Your task to perform on an android device: change your default location settings in chrome Image 0: 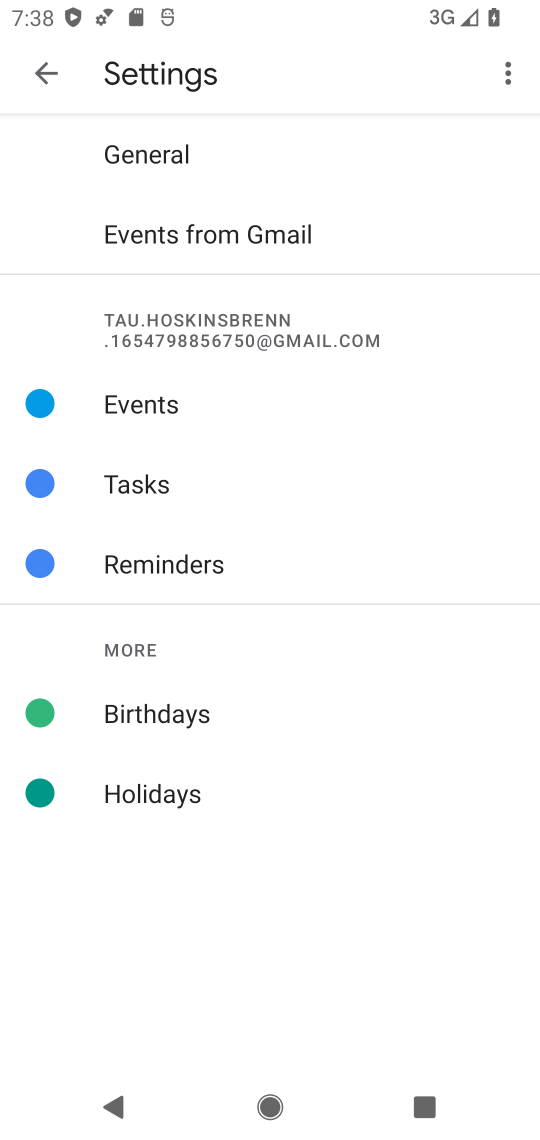
Step 0: press home button
Your task to perform on an android device: change your default location settings in chrome Image 1: 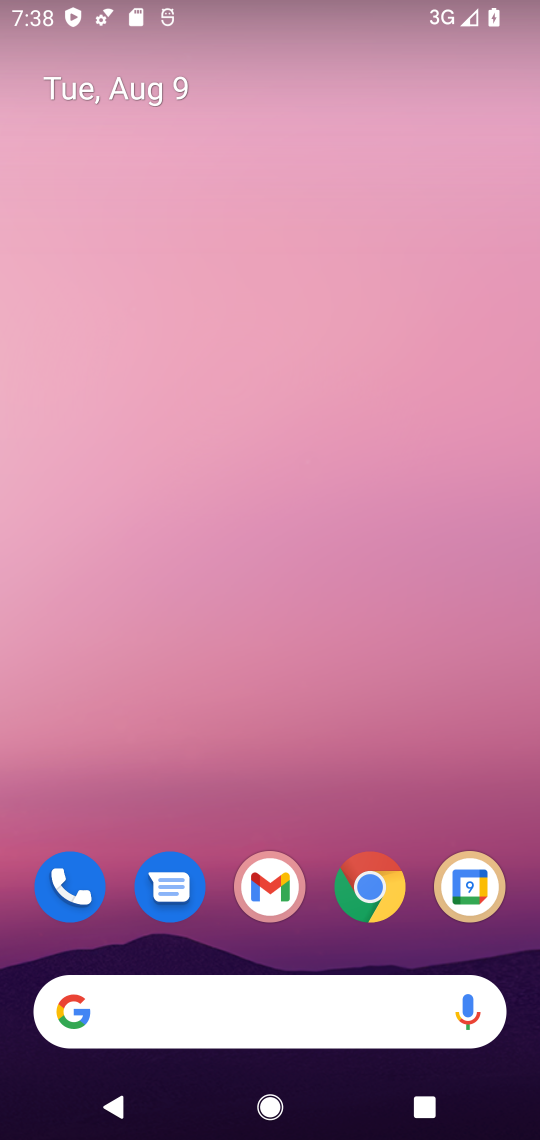
Step 1: click (369, 885)
Your task to perform on an android device: change your default location settings in chrome Image 2: 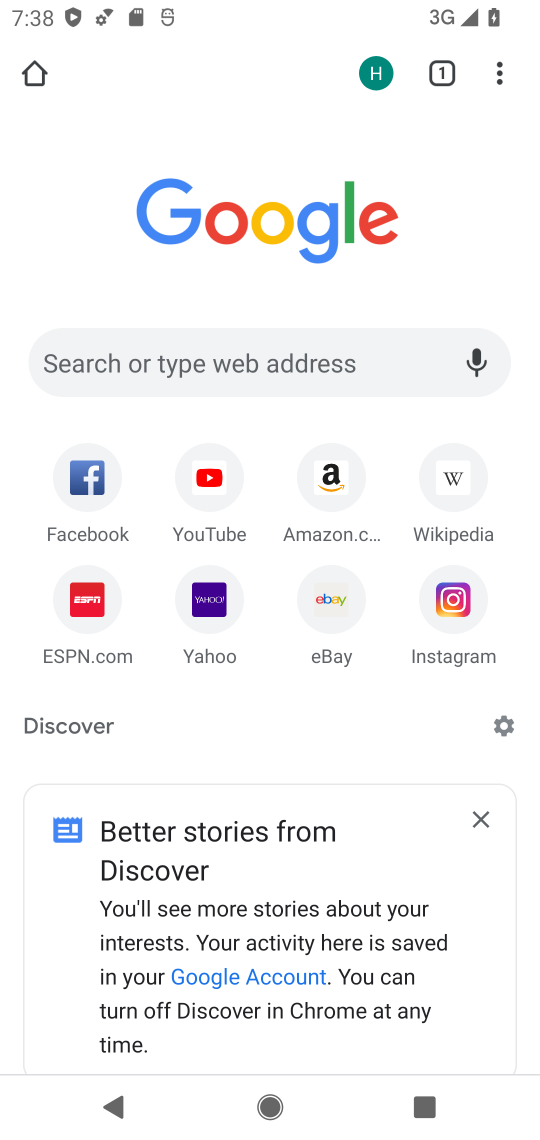
Step 2: click (497, 67)
Your task to perform on an android device: change your default location settings in chrome Image 3: 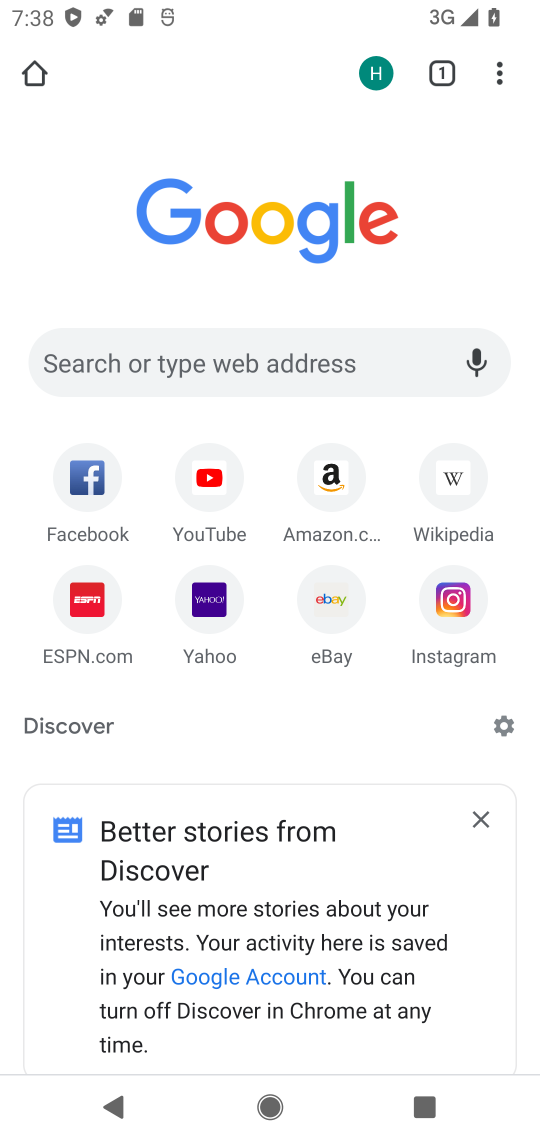
Step 3: click (497, 67)
Your task to perform on an android device: change your default location settings in chrome Image 4: 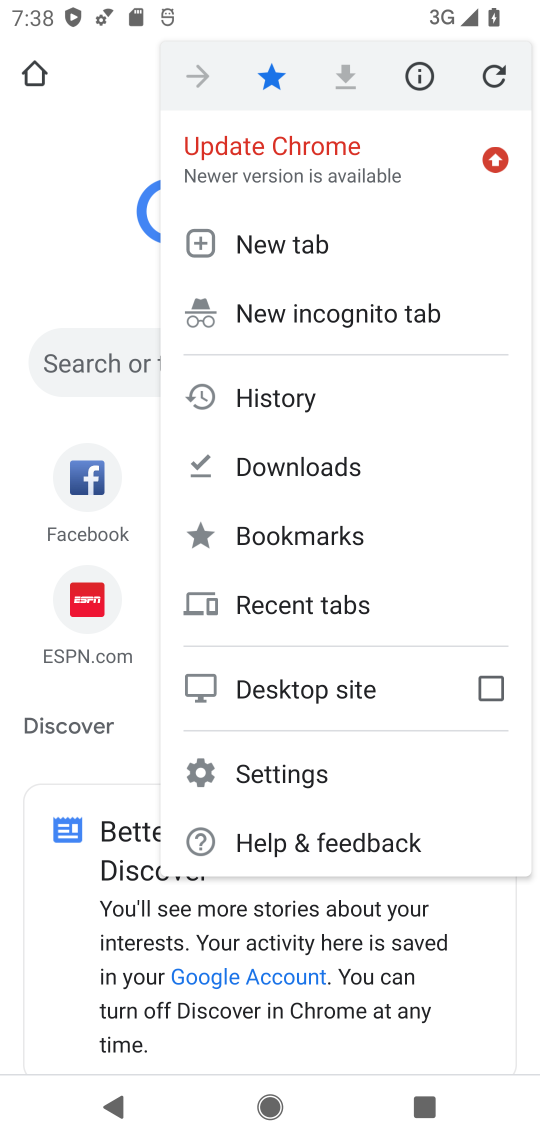
Step 4: click (322, 782)
Your task to perform on an android device: change your default location settings in chrome Image 5: 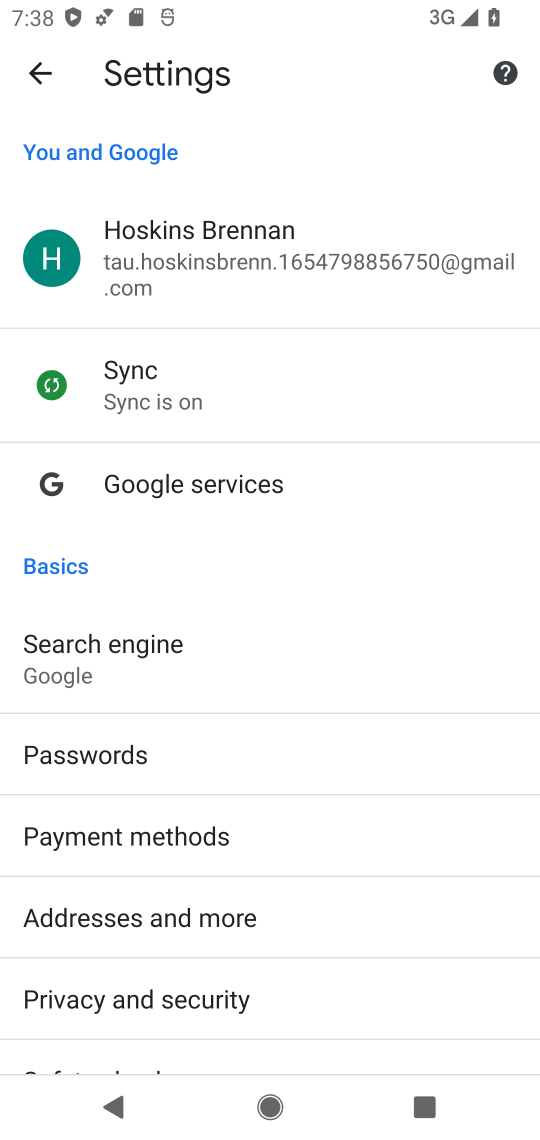
Step 5: drag from (382, 872) to (329, 403)
Your task to perform on an android device: change your default location settings in chrome Image 6: 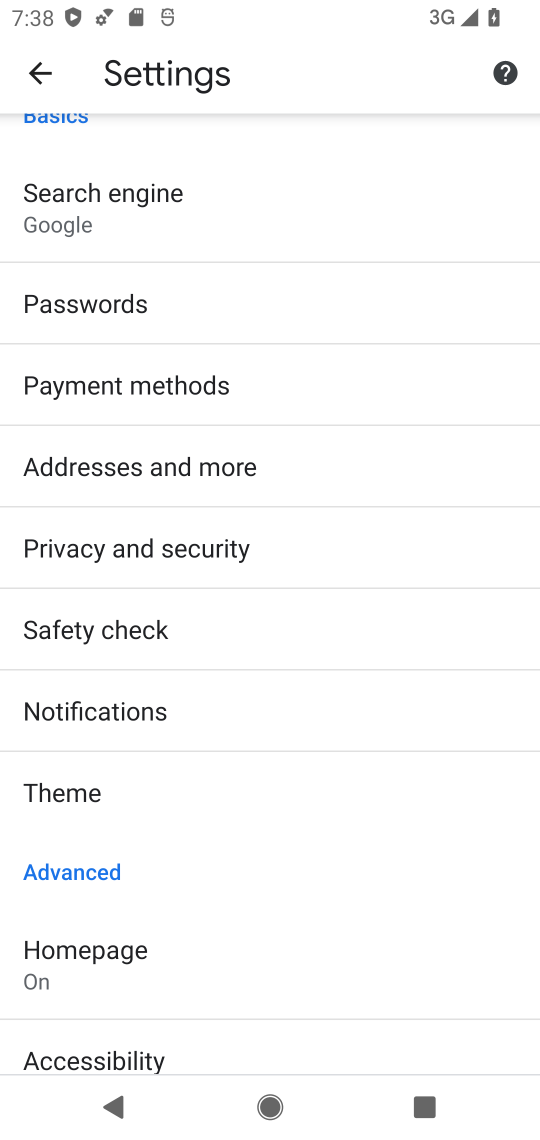
Step 6: drag from (334, 698) to (281, 223)
Your task to perform on an android device: change your default location settings in chrome Image 7: 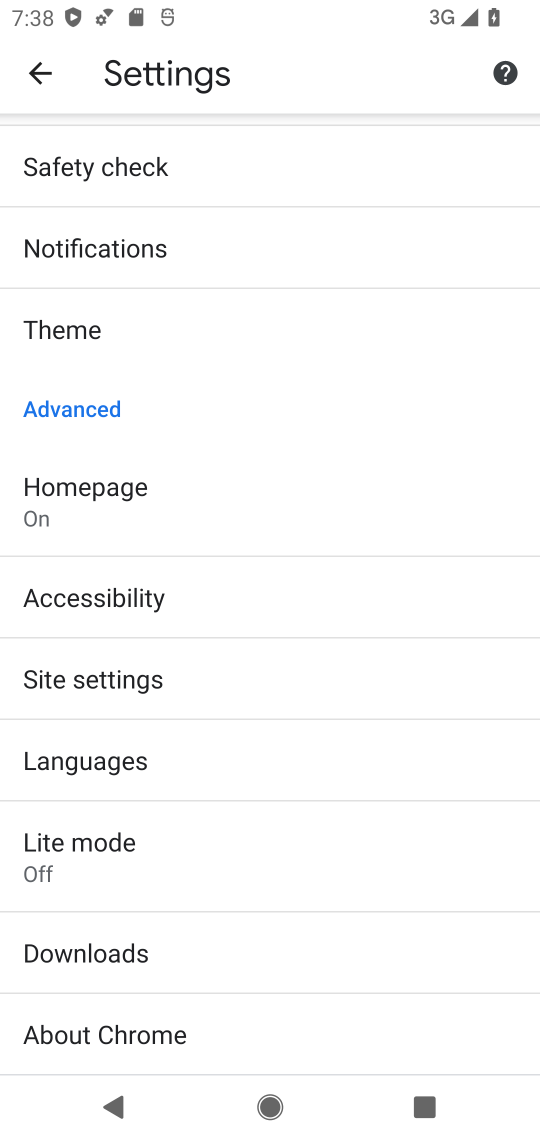
Step 7: click (214, 685)
Your task to perform on an android device: change your default location settings in chrome Image 8: 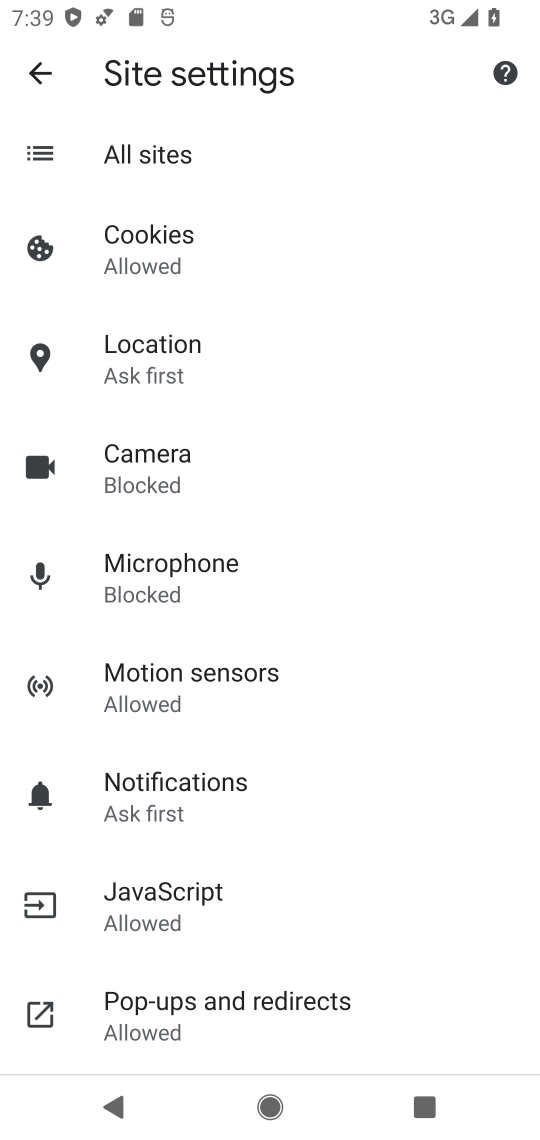
Step 8: click (166, 352)
Your task to perform on an android device: change your default location settings in chrome Image 9: 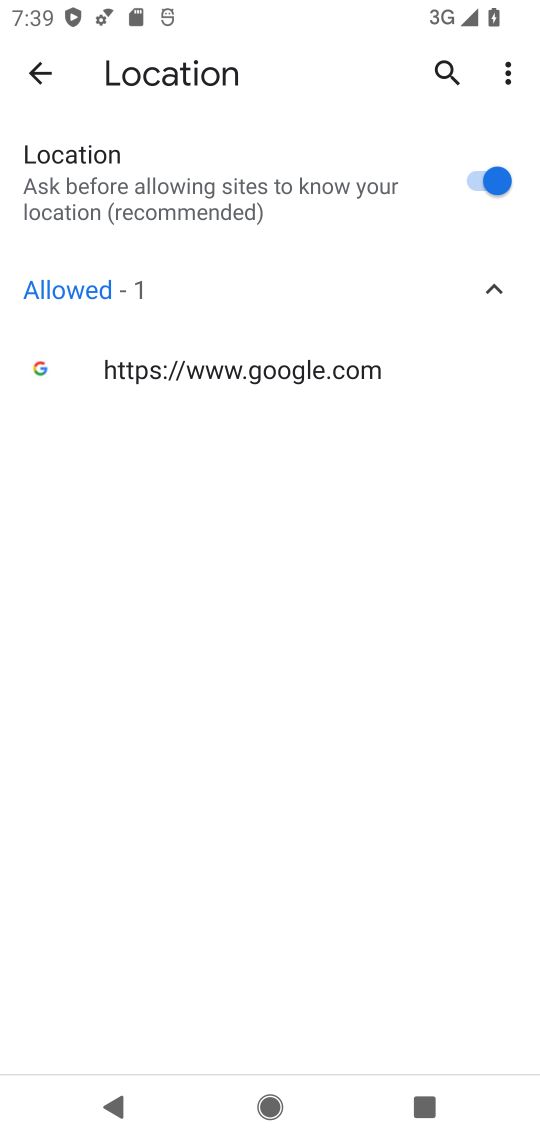
Step 9: click (480, 171)
Your task to perform on an android device: change your default location settings in chrome Image 10: 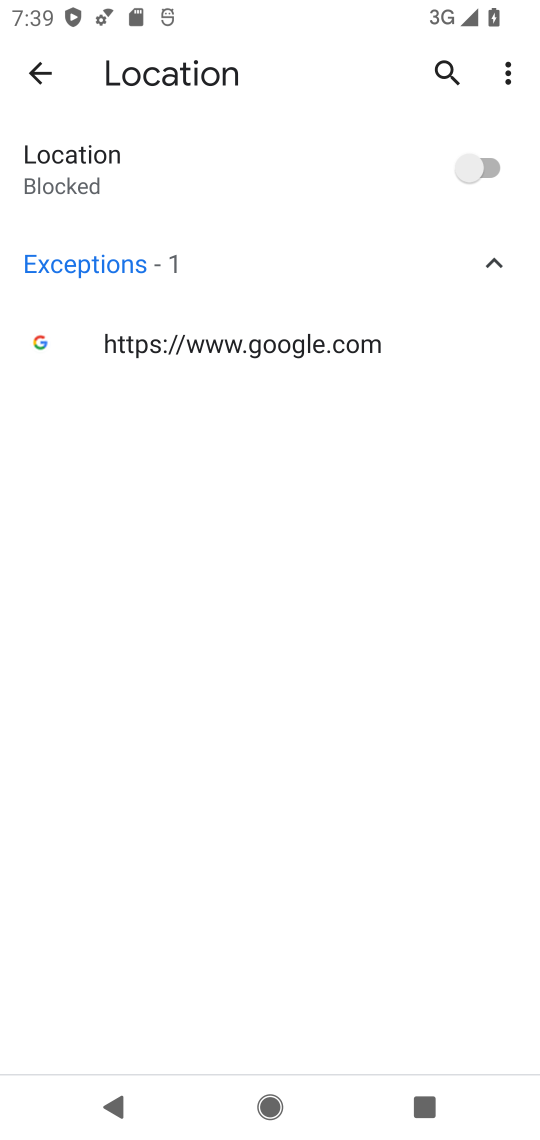
Step 10: task complete